Your task to perform on an android device: Search for pizza restaurants on Maps Image 0: 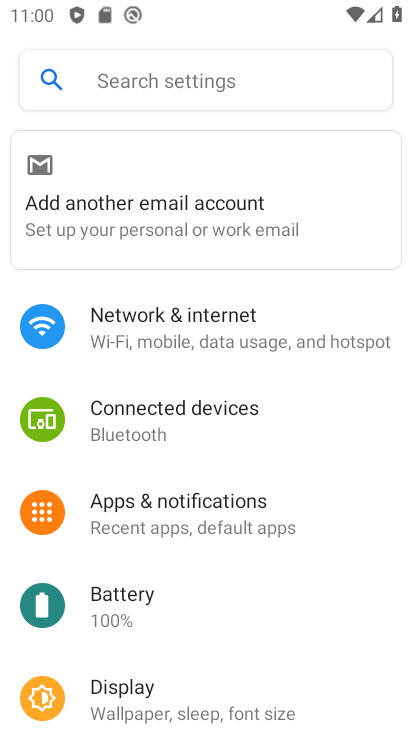
Step 0: press back button
Your task to perform on an android device: Search for pizza restaurants on Maps Image 1: 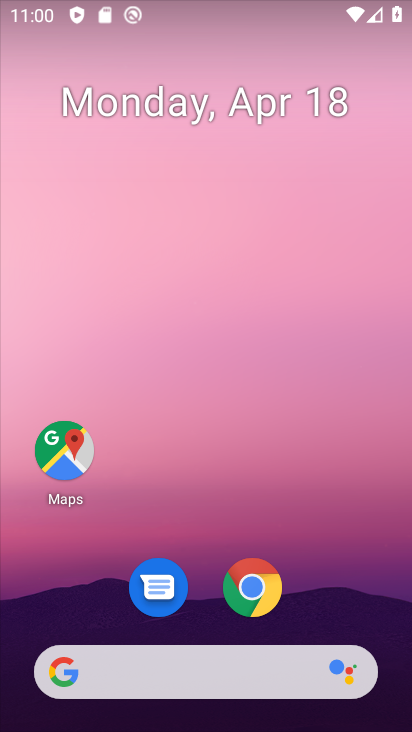
Step 1: click (71, 471)
Your task to perform on an android device: Search for pizza restaurants on Maps Image 2: 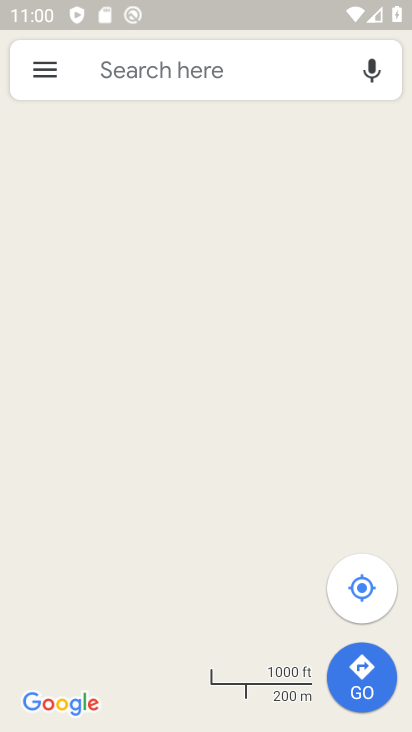
Step 2: click (222, 66)
Your task to perform on an android device: Search for pizza restaurants on Maps Image 3: 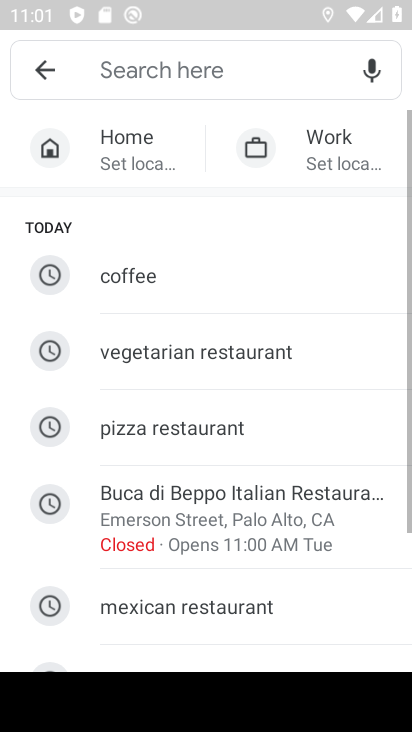
Step 3: type "pizza restaurants"
Your task to perform on an android device: Search for pizza restaurants on Maps Image 4: 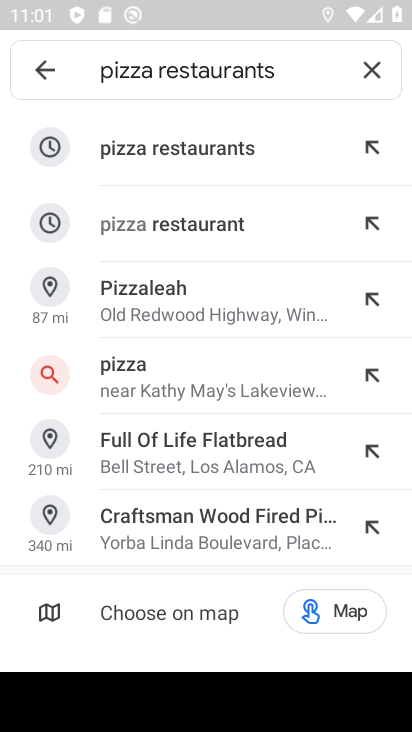
Step 4: click (165, 158)
Your task to perform on an android device: Search for pizza restaurants on Maps Image 5: 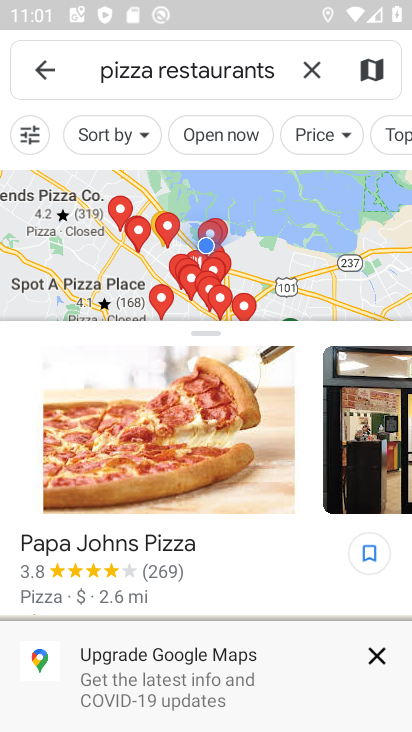
Step 5: click (383, 658)
Your task to perform on an android device: Search for pizza restaurants on Maps Image 6: 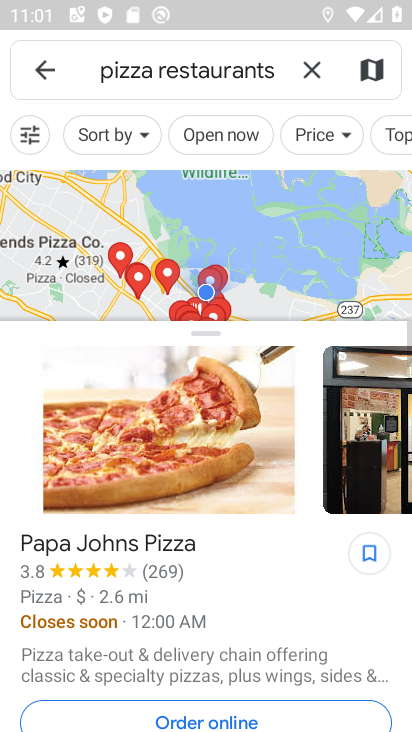
Step 6: task complete